Your task to perform on an android device: What's the weather? Image 0: 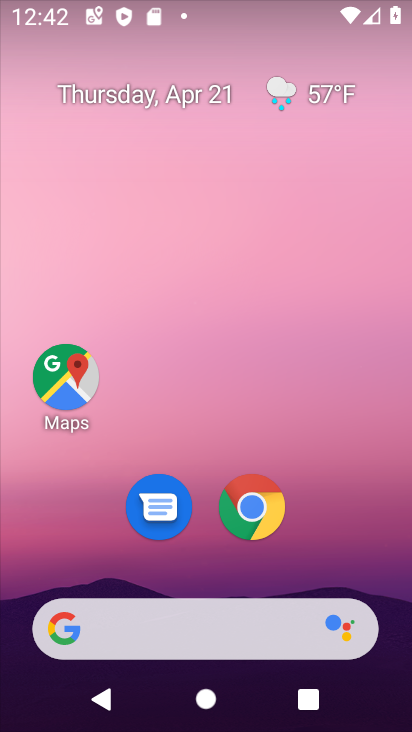
Step 0: drag from (209, 563) to (247, 112)
Your task to perform on an android device: What's the weather? Image 1: 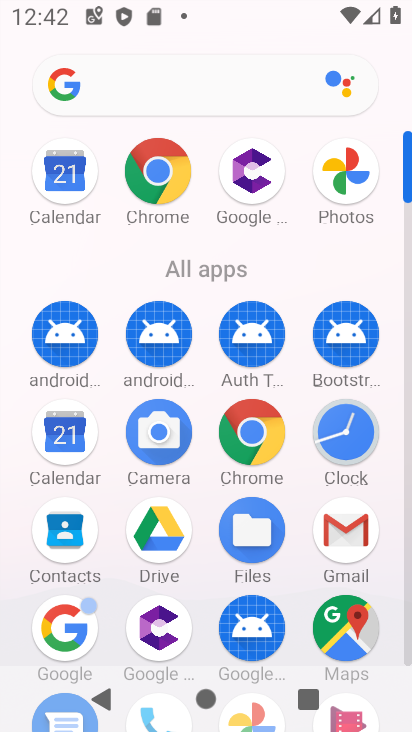
Step 1: click (250, 455)
Your task to perform on an android device: What's the weather? Image 2: 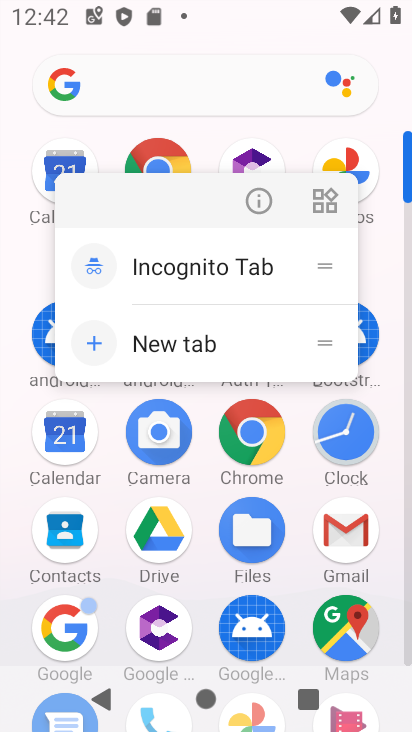
Step 2: click (252, 197)
Your task to perform on an android device: What's the weather? Image 3: 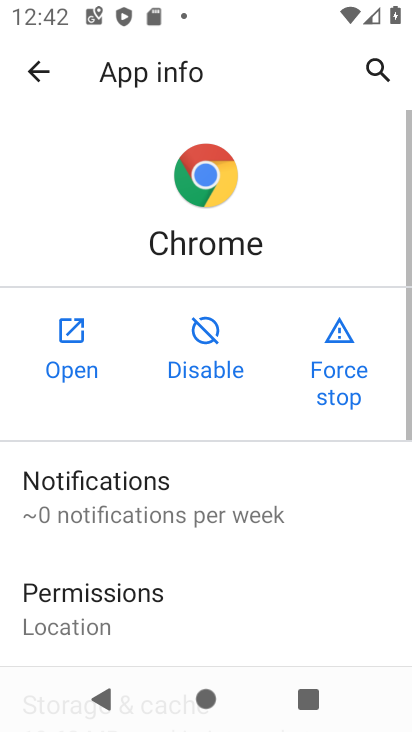
Step 3: click (65, 353)
Your task to perform on an android device: What's the weather? Image 4: 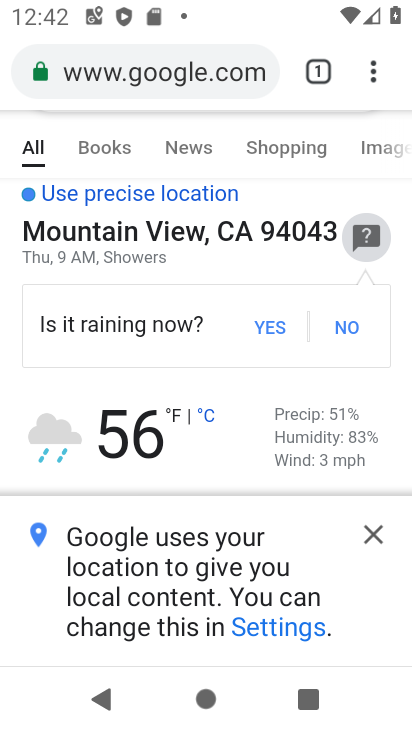
Step 4: drag from (214, 380) to (271, 139)
Your task to perform on an android device: What's the weather? Image 5: 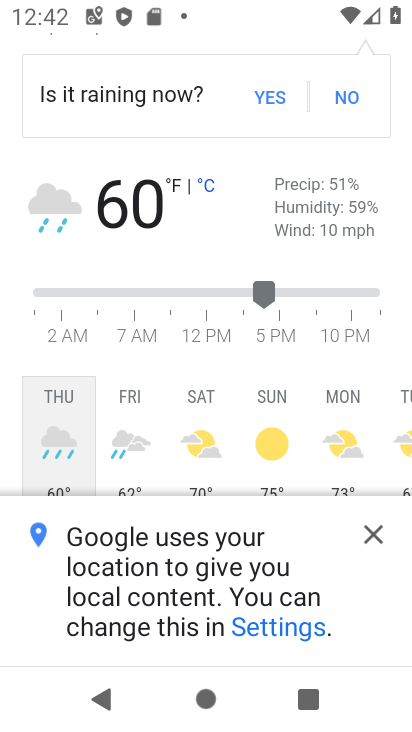
Step 5: click (161, 245)
Your task to perform on an android device: What's the weather? Image 6: 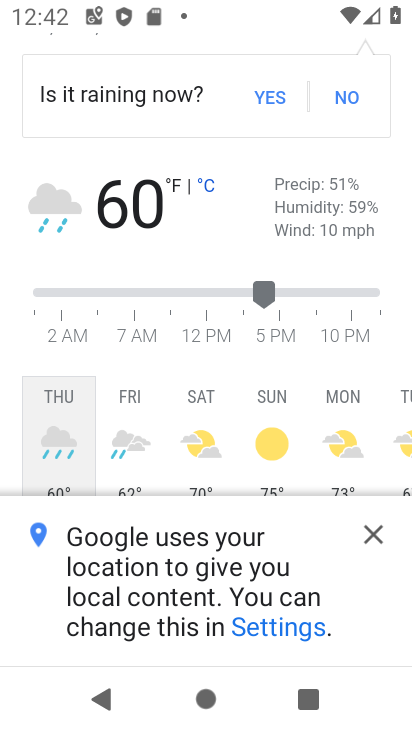
Step 6: click (366, 533)
Your task to perform on an android device: What's the weather? Image 7: 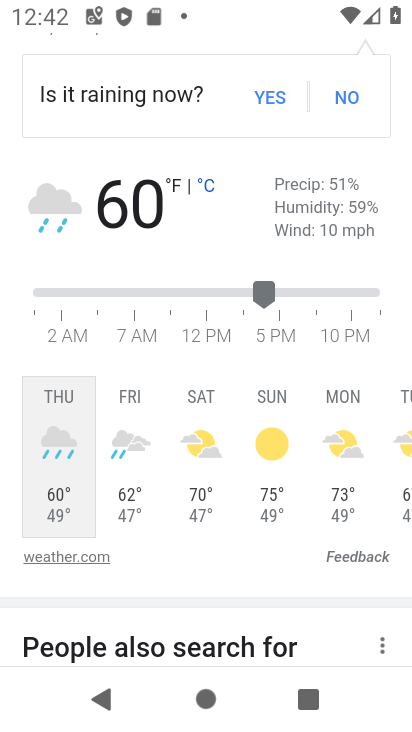
Step 7: task complete